Your task to perform on an android device: turn off javascript in the chrome app Image 0: 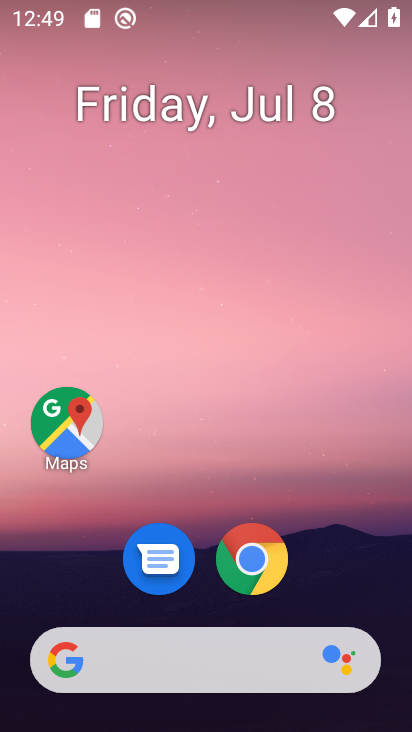
Step 0: drag from (204, 606) to (173, 31)
Your task to perform on an android device: turn off javascript in the chrome app Image 1: 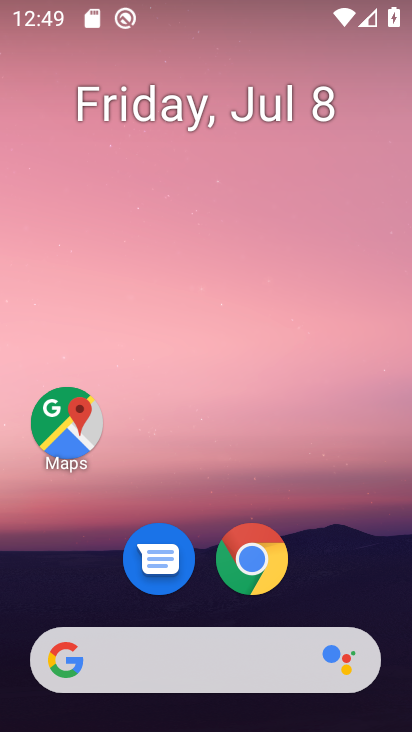
Step 1: drag from (225, 625) to (197, 8)
Your task to perform on an android device: turn off javascript in the chrome app Image 2: 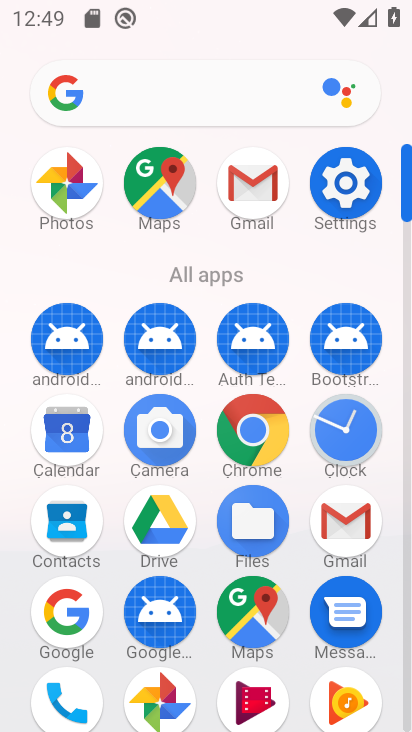
Step 2: click (266, 437)
Your task to perform on an android device: turn off javascript in the chrome app Image 3: 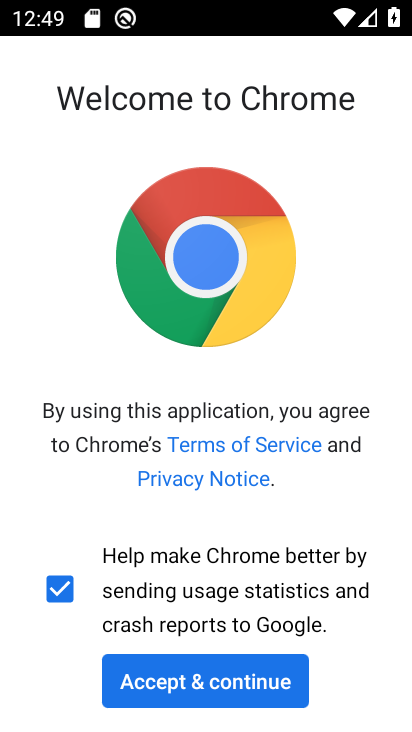
Step 3: click (238, 665)
Your task to perform on an android device: turn off javascript in the chrome app Image 4: 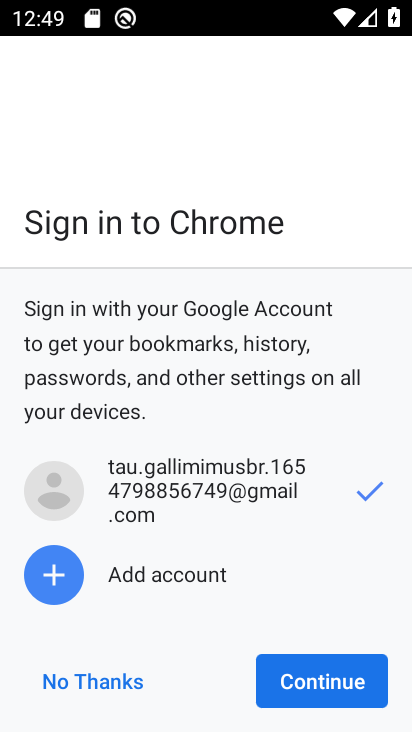
Step 4: click (322, 681)
Your task to perform on an android device: turn off javascript in the chrome app Image 5: 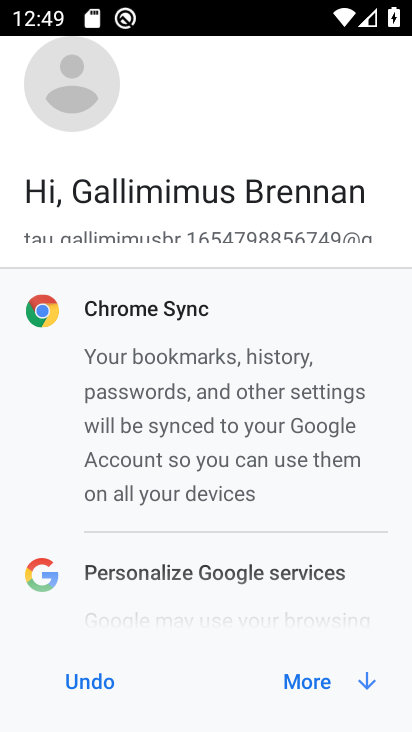
Step 5: click (334, 686)
Your task to perform on an android device: turn off javascript in the chrome app Image 6: 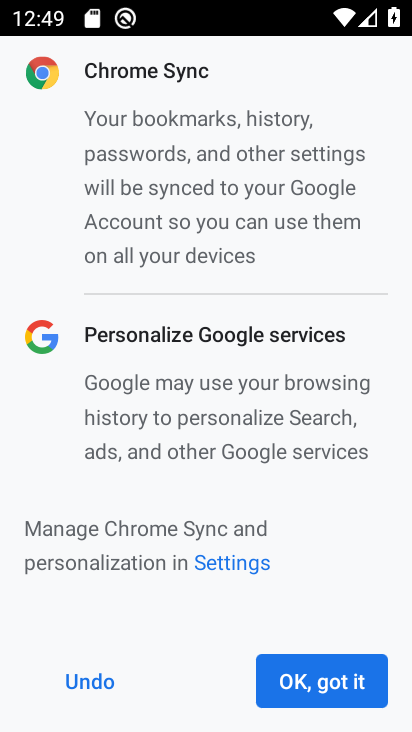
Step 6: click (334, 686)
Your task to perform on an android device: turn off javascript in the chrome app Image 7: 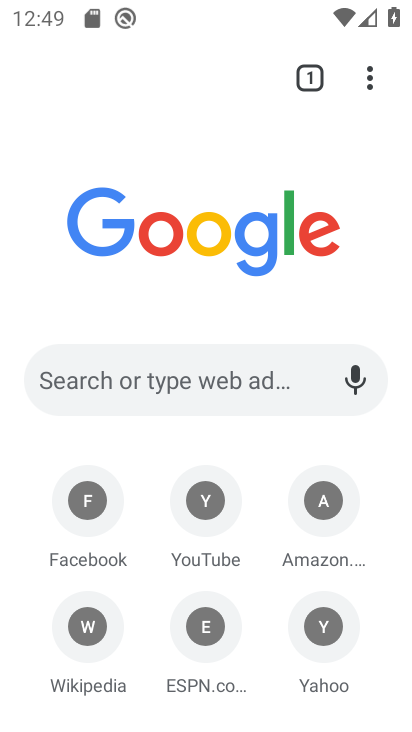
Step 7: drag from (367, 81) to (59, 650)
Your task to perform on an android device: turn off javascript in the chrome app Image 8: 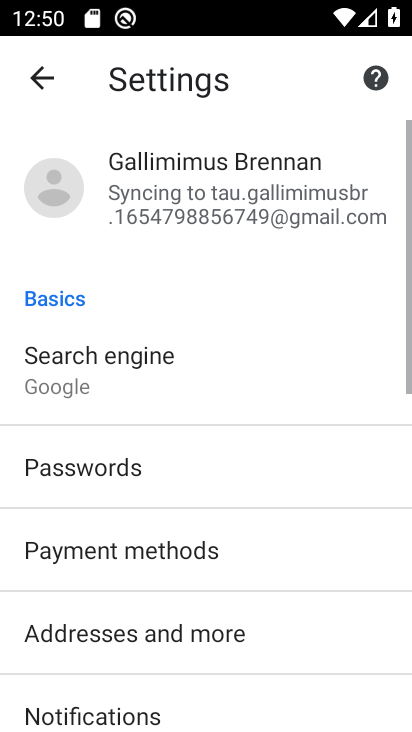
Step 8: drag from (185, 571) to (183, 102)
Your task to perform on an android device: turn off javascript in the chrome app Image 9: 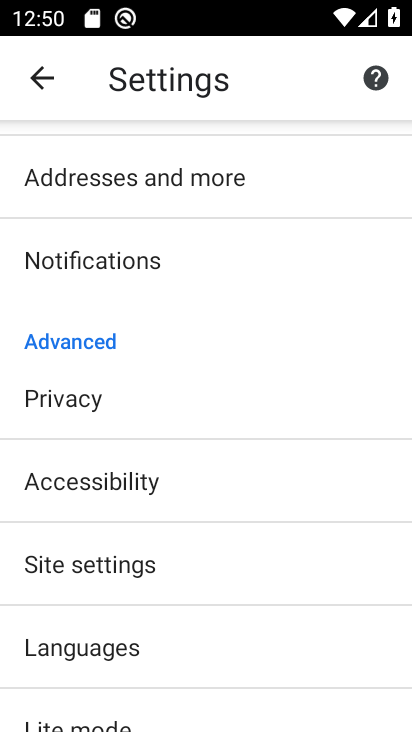
Step 9: click (111, 578)
Your task to perform on an android device: turn off javascript in the chrome app Image 10: 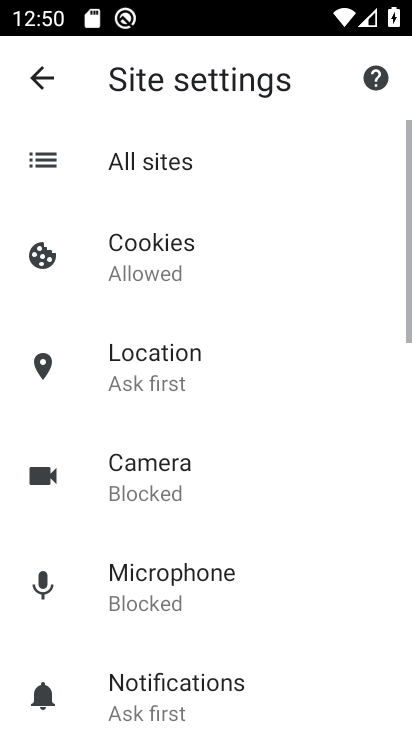
Step 10: drag from (112, 577) to (137, 77)
Your task to perform on an android device: turn off javascript in the chrome app Image 11: 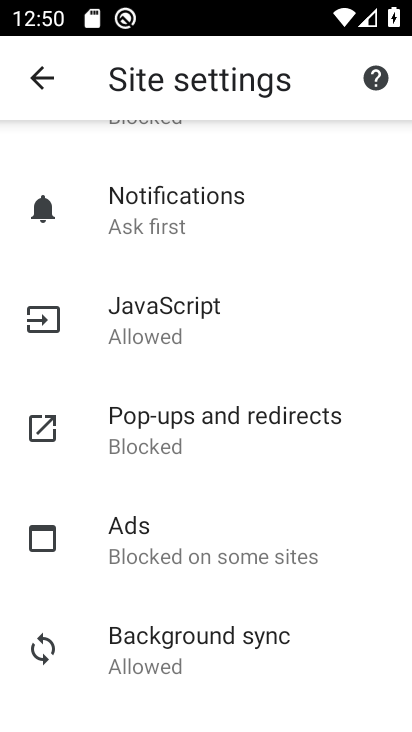
Step 11: click (163, 337)
Your task to perform on an android device: turn off javascript in the chrome app Image 12: 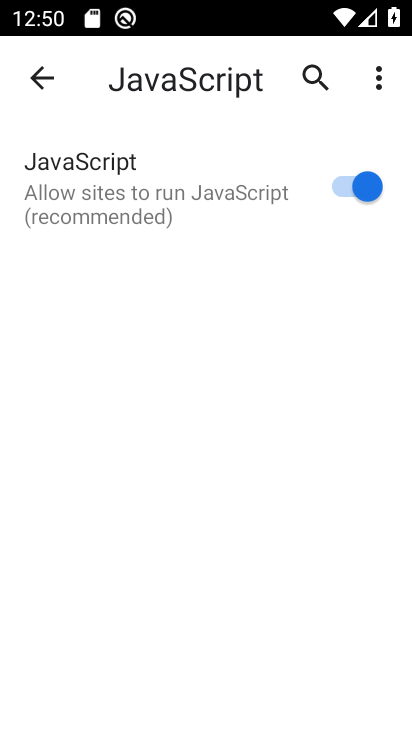
Step 12: click (333, 187)
Your task to perform on an android device: turn off javascript in the chrome app Image 13: 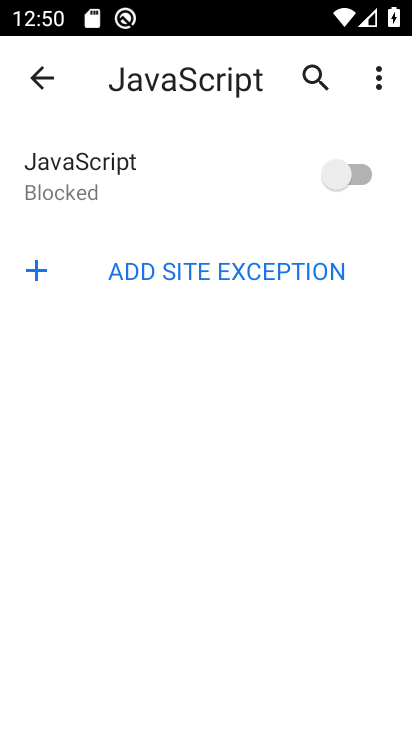
Step 13: task complete